Your task to perform on an android device: turn on notifications settings in the gmail app Image 0: 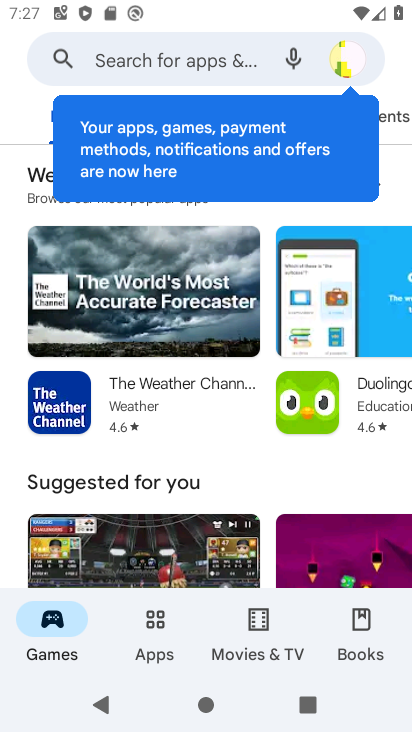
Step 0: press home button
Your task to perform on an android device: turn on notifications settings in the gmail app Image 1: 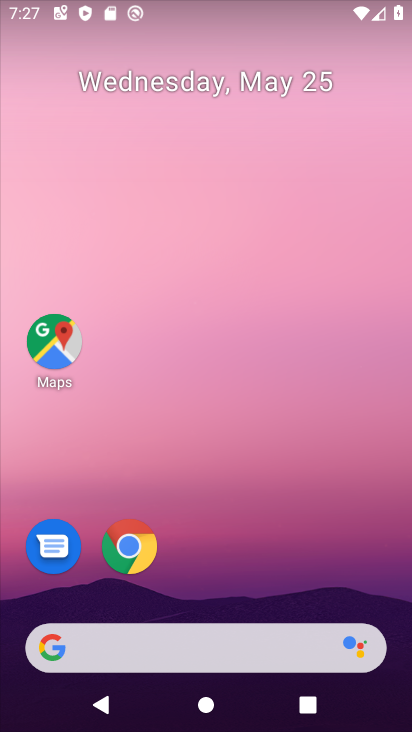
Step 1: drag from (187, 649) to (388, 230)
Your task to perform on an android device: turn on notifications settings in the gmail app Image 2: 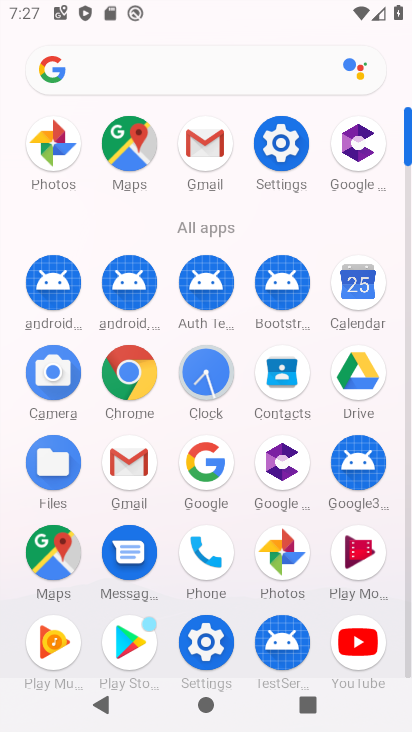
Step 2: click (132, 470)
Your task to perform on an android device: turn on notifications settings in the gmail app Image 3: 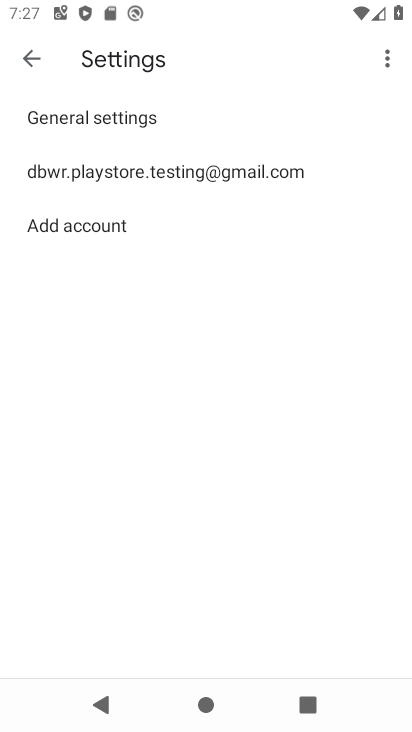
Step 3: click (107, 169)
Your task to perform on an android device: turn on notifications settings in the gmail app Image 4: 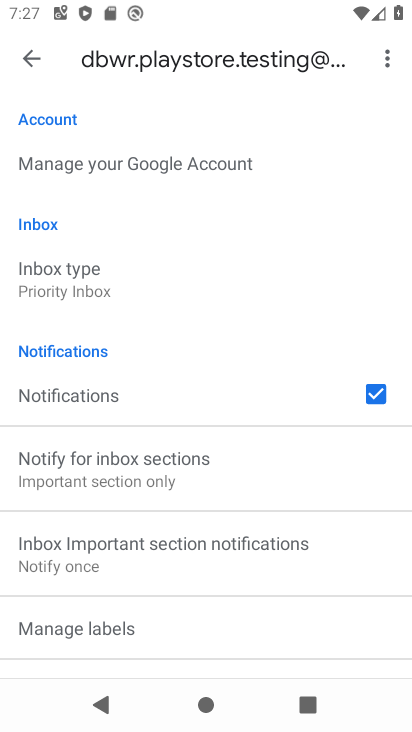
Step 4: task complete